Your task to perform on an android device: turn off location Image 0: 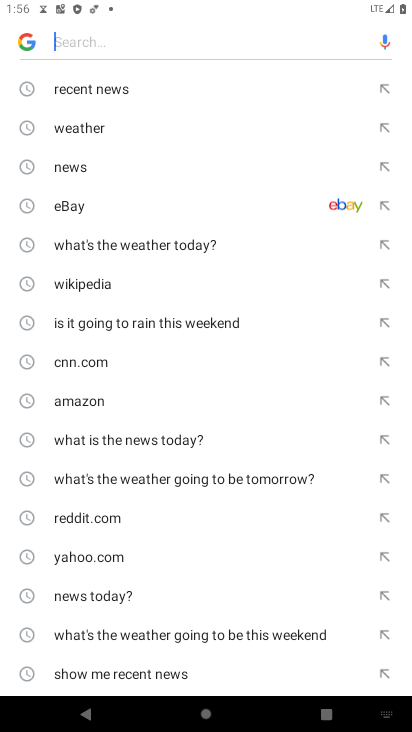
Step 0: press back button
Your task to perform on an android device: turn off location Image 1: 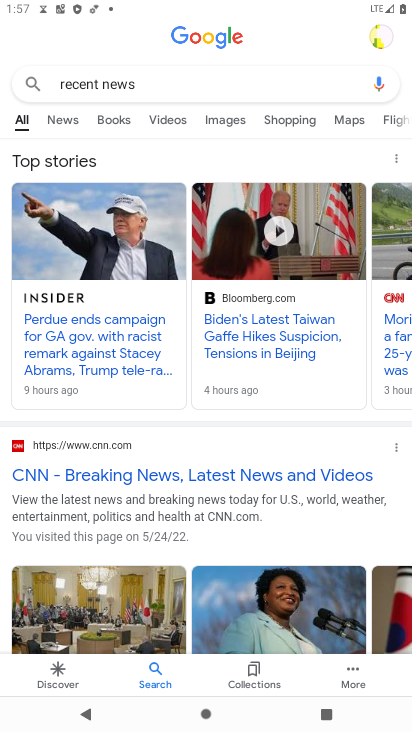
Step 1: drag from (321, 7) to (346, 556)
Your task to perform on an android device: turn off location Image 2: 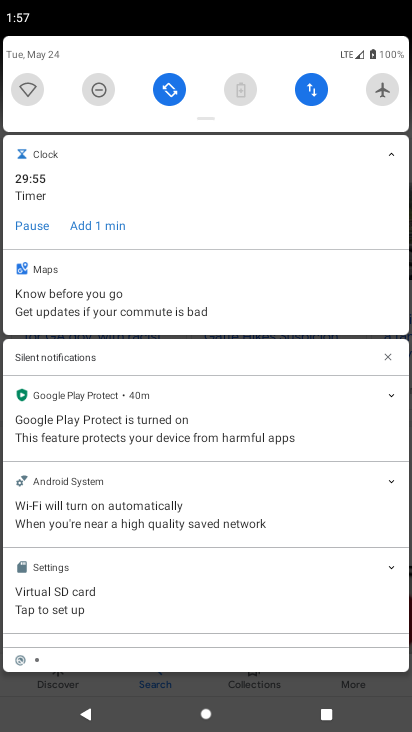
Step 2: press home button
Your task to perform on an android device: turn off location Image 3: 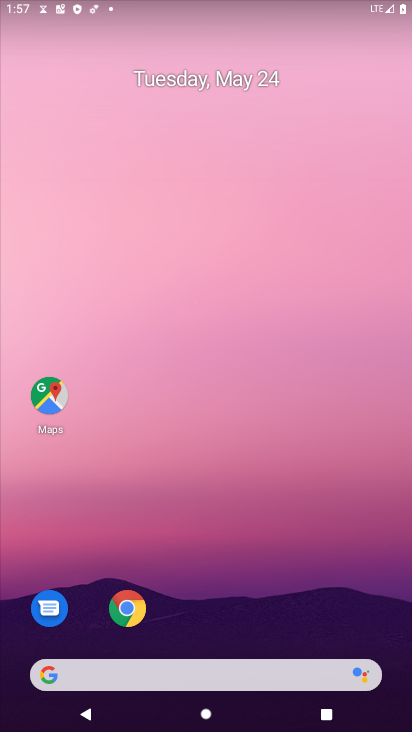
Step 3: drag from (232, 626) to (228, 127)
Your task to perform on an android device: turn off location Image 4: 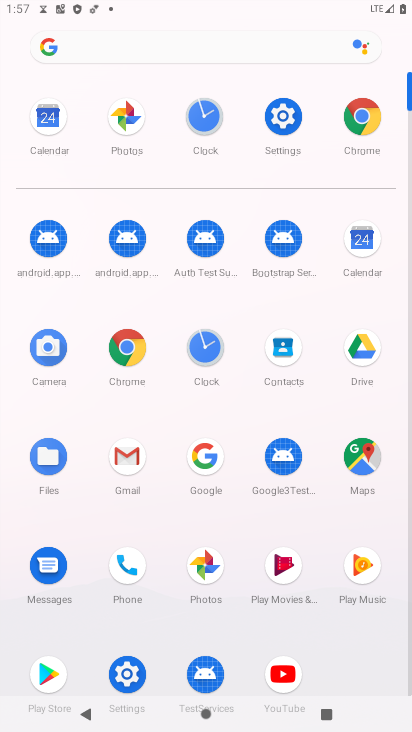
Step 4: click (298, 108)
Your task to perform on an android device: turn off location Image 5: 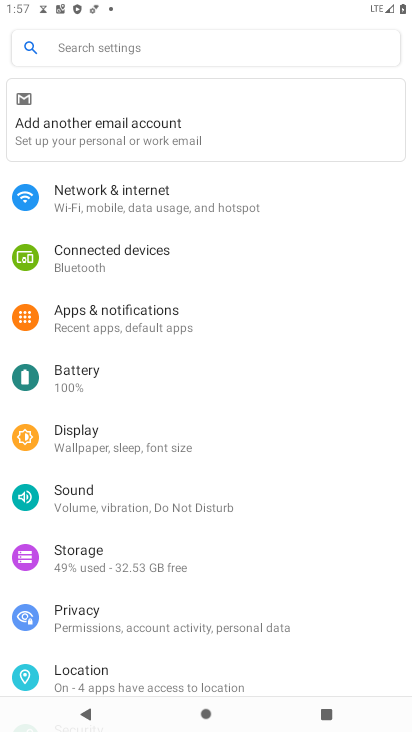
Step 5: click (147, 680)
Your task to perform on an android device: turn off location Image 6: 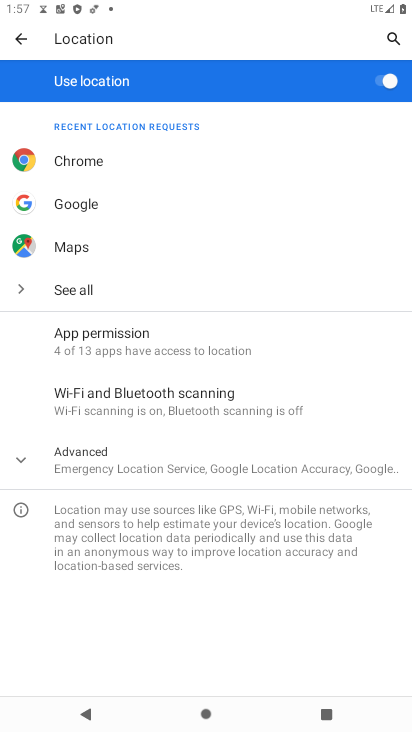
Step 6: click (386, 97)
Your task to perform on an android device: turn off location Image 7: 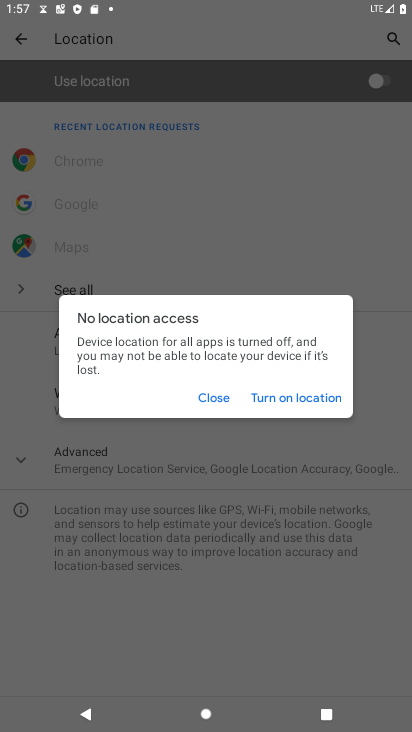
Step 7: task complete